Your task to perform on an android device: Open the map Image 0: 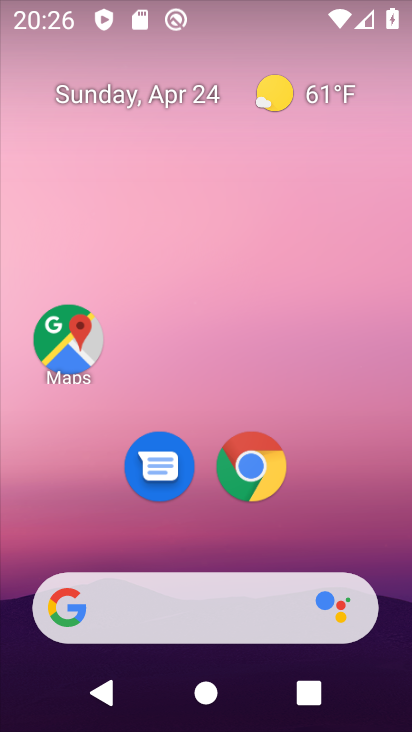
Step 0: click (73, 318)
Your task to perform on an android device: Open the map Image 1: 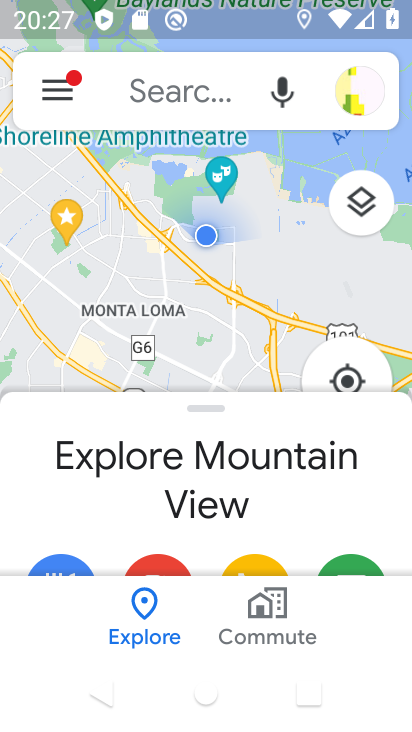
Step 1: task complete